Your task to perform on an android device: Add "beats solo 3" to the cart on amazon, then select checkout. Image 0: 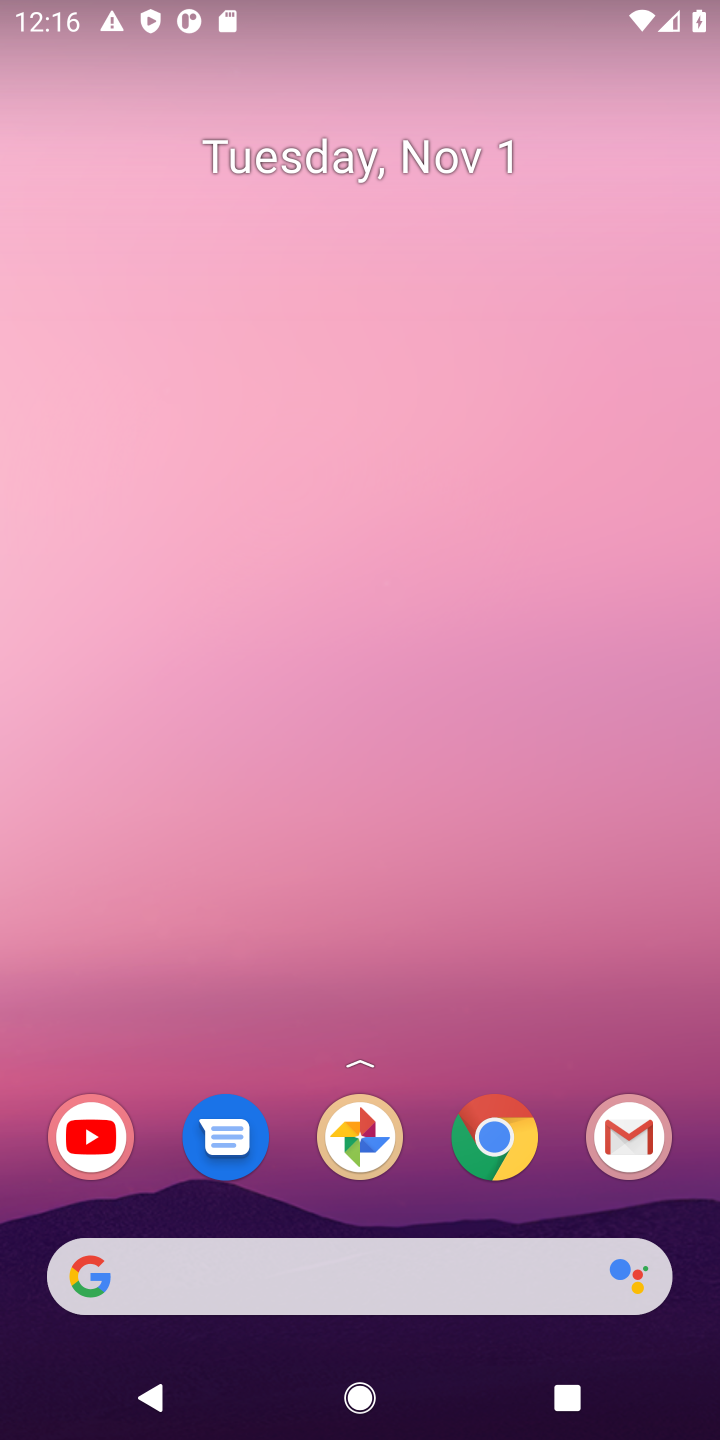
Step 0: click (482, 1168)
Your task to perform on an android device: Add "beats solo 3" to the cart on amazon, then select checkout. Image 1: 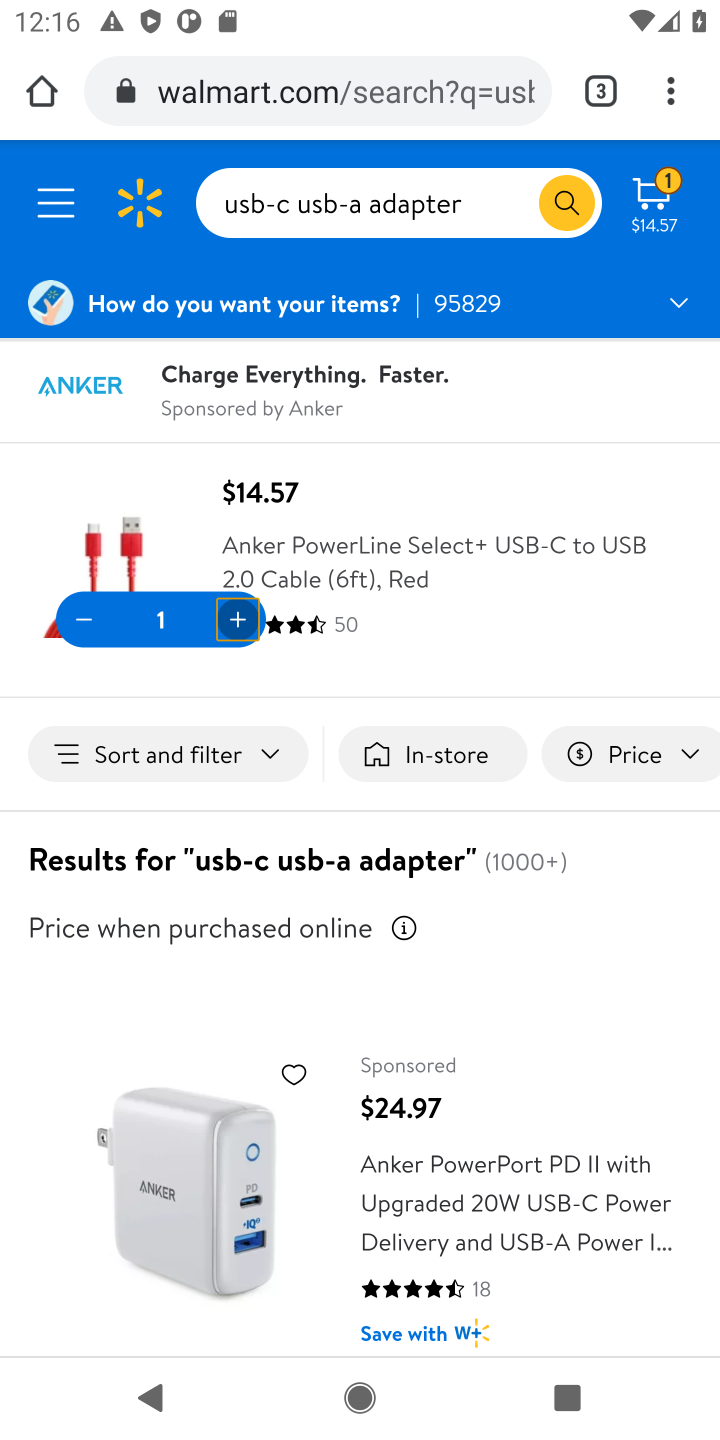
Step 1: click (596, 101)
Your task to perform on an android device: Add "beats solo 3" to the cart on amazon, then select checkout. Image 2: 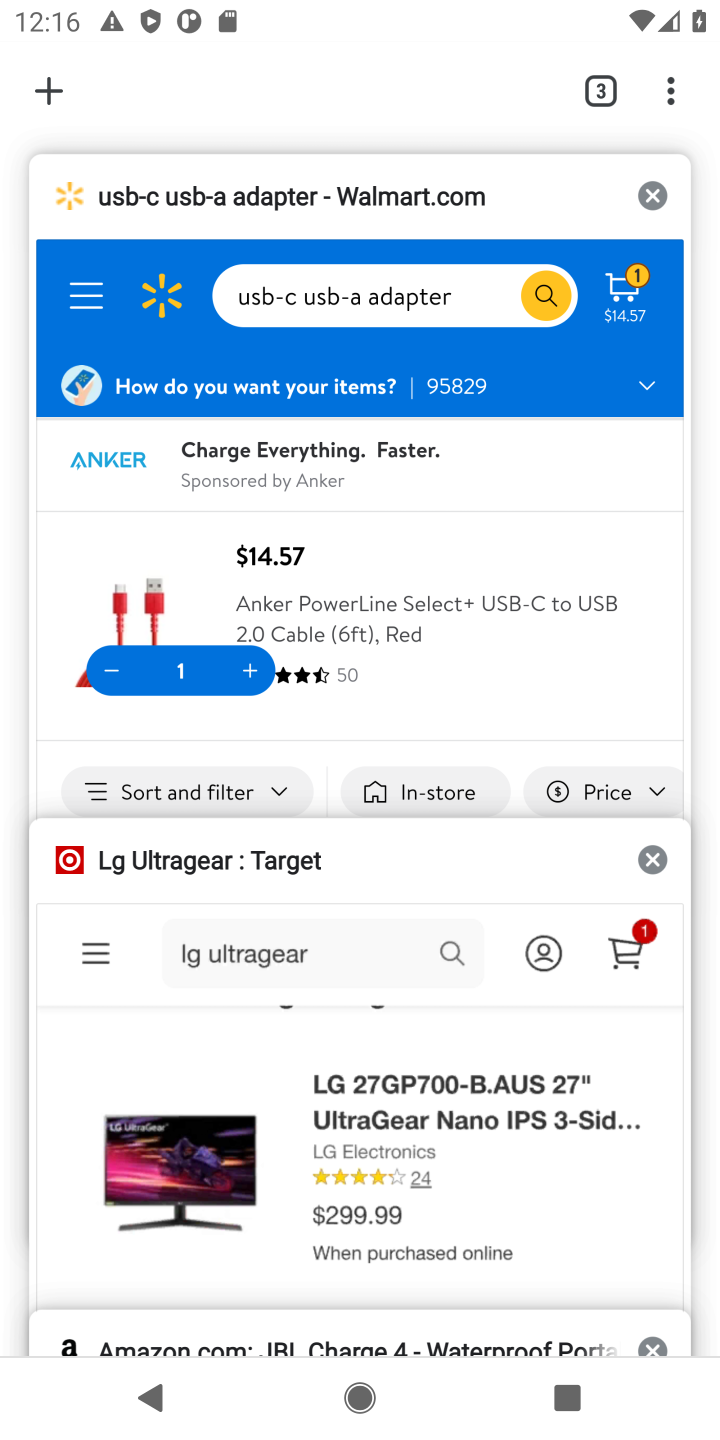
Step 2: click (320, 1330)
Your task to perform on an android device: Add "beats solo 3" to the cart on amazon, then select checkout. Image 3: 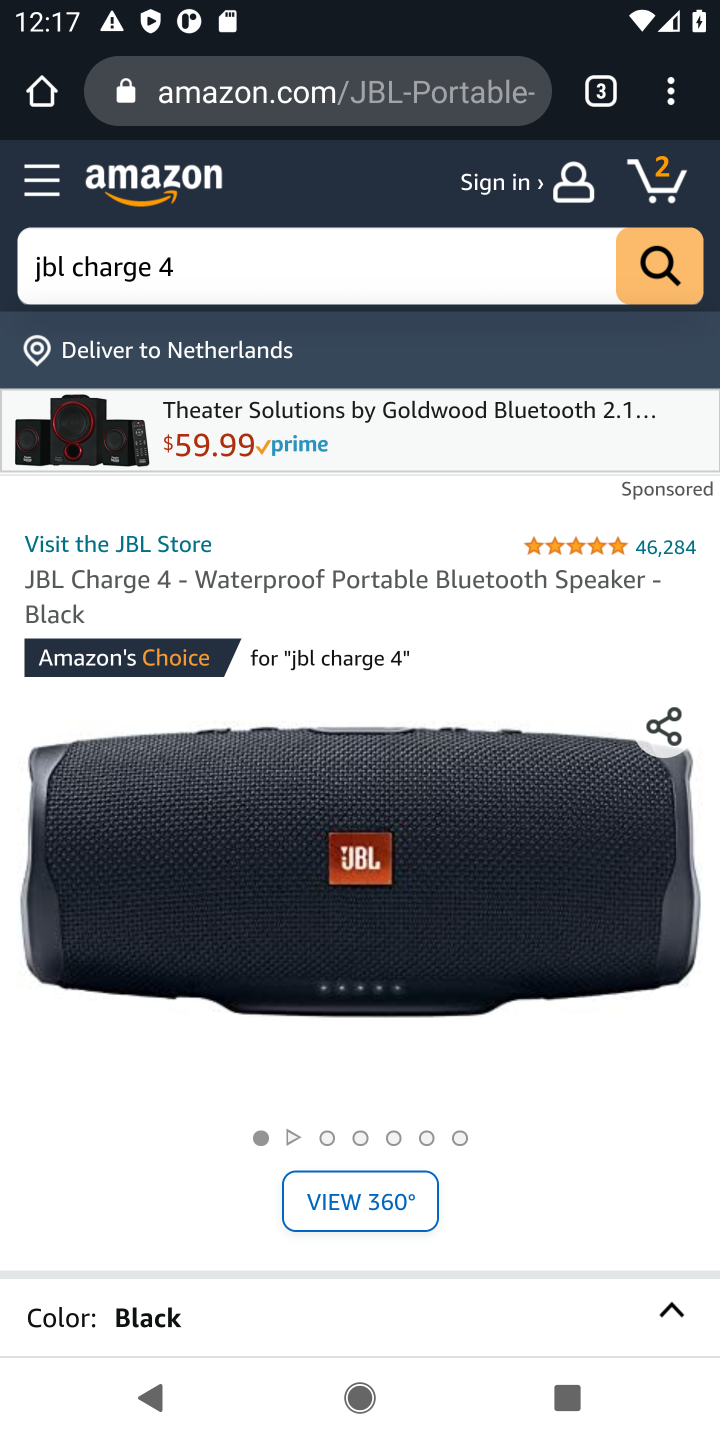
Step 3: click (542, 297)
Your task to perform on an android device: Add "beats solo 3" to the cart on amazon, then select checkout. Image 4: 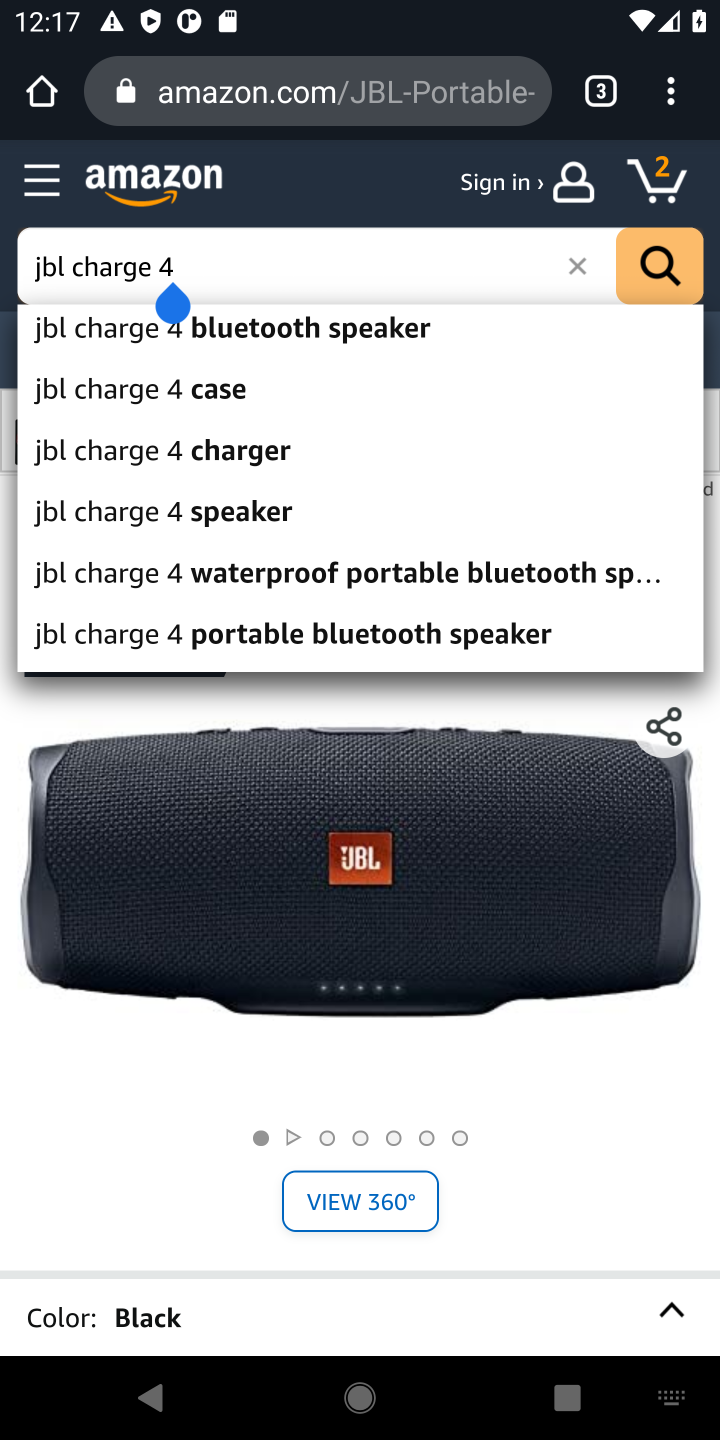
Step 4: click (579, 264)
Your task to perform on an android device: Add "beats solo 3" to the cart on amazon, then select checkout. Image 5: 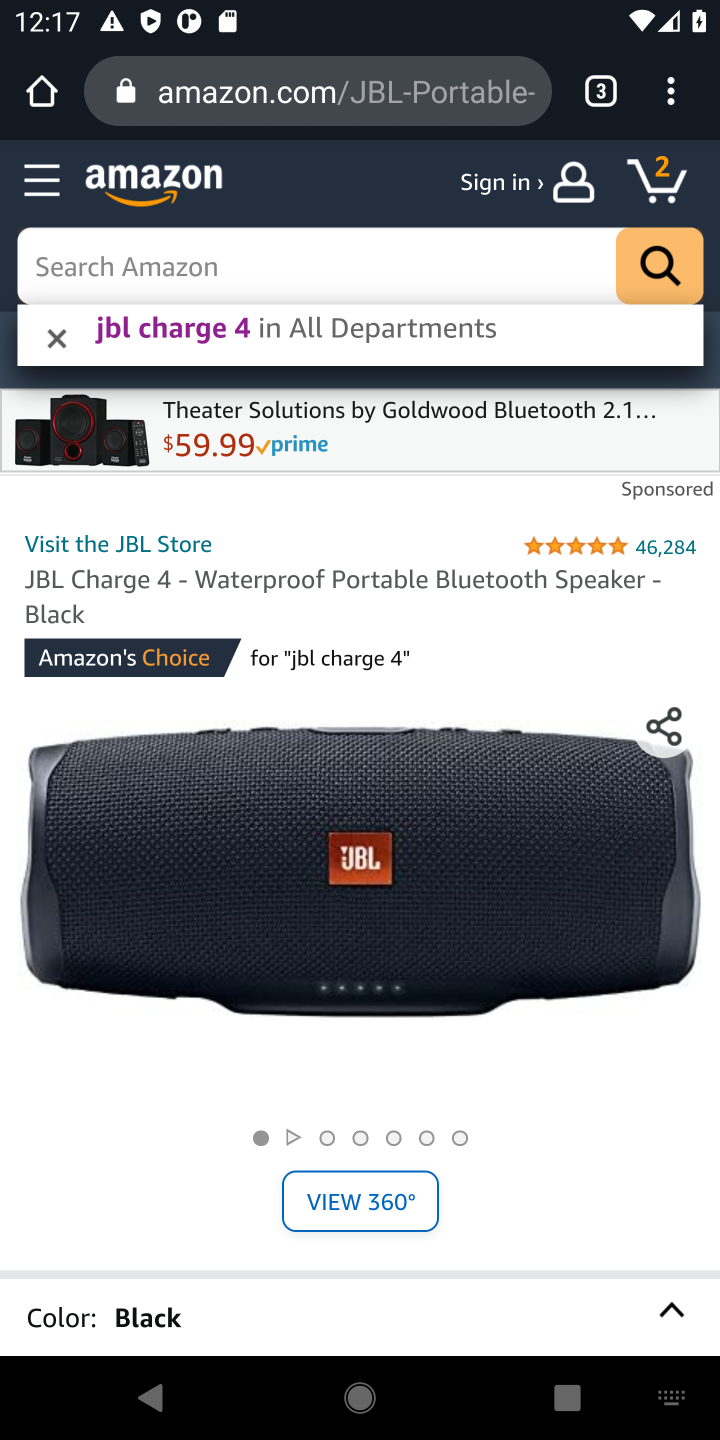
Step 5: type "beats solo 3"
Your task to perform on an android device: Add "beats solo 3" to the cart on amazon, then select checkout. Image 6: 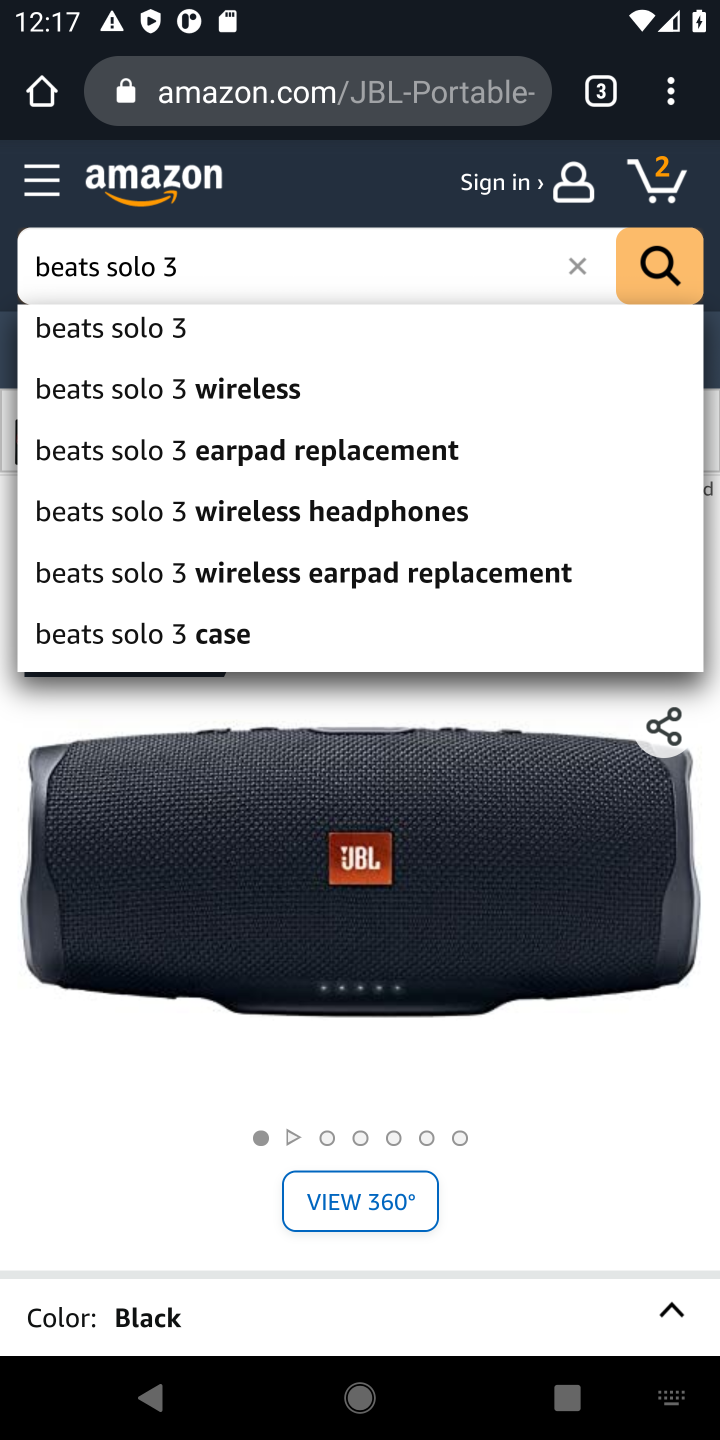
Step 6: click (134, 332)
Your task to perform on an android device: Add "beats solo 3" to the cart on amazon, then select checkout. Image 7: 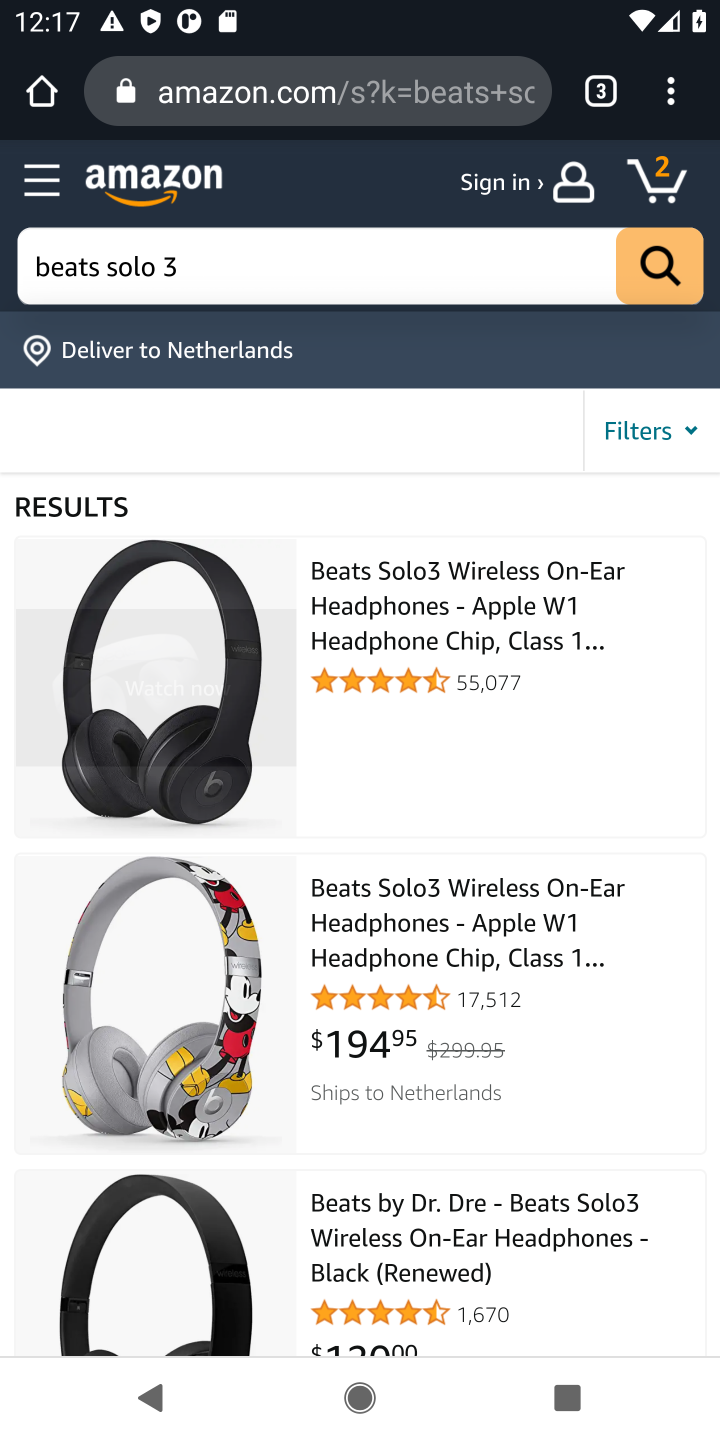
Step 7: click (415, 603)
Your task to perform on an android device: Add "beats solo 3" to the cart on amazon, then select checkout. Image 8: 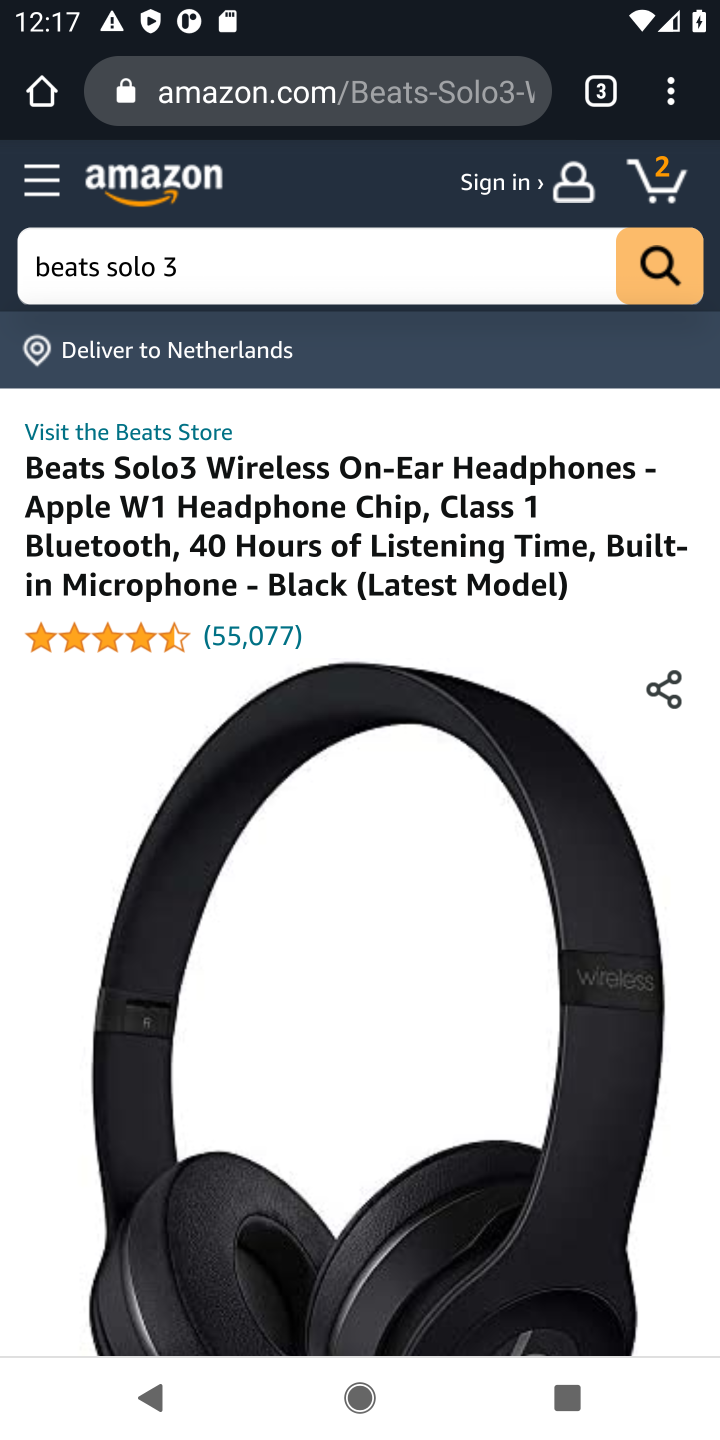
Step 8: drag from (357, 873) to (553, 148)
Your task to perform on an android device: Add "beats solo 3" to the cart on amazon, then select checkout. Image 9: 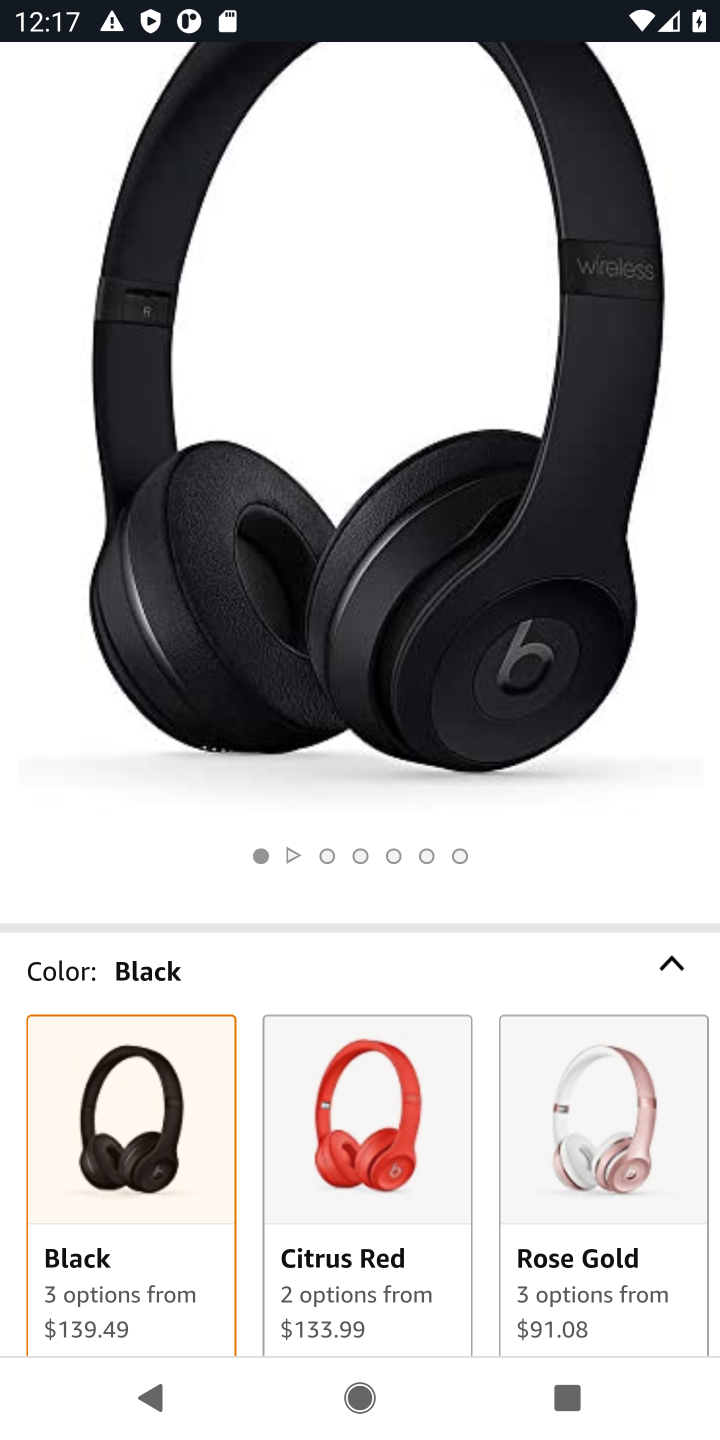
Step 9: drag from (354, 1058) to (432, 268)
Your task to perform on an android device: Add "beats solo 3" to the cart on amazon, then select checkout. Image 10: 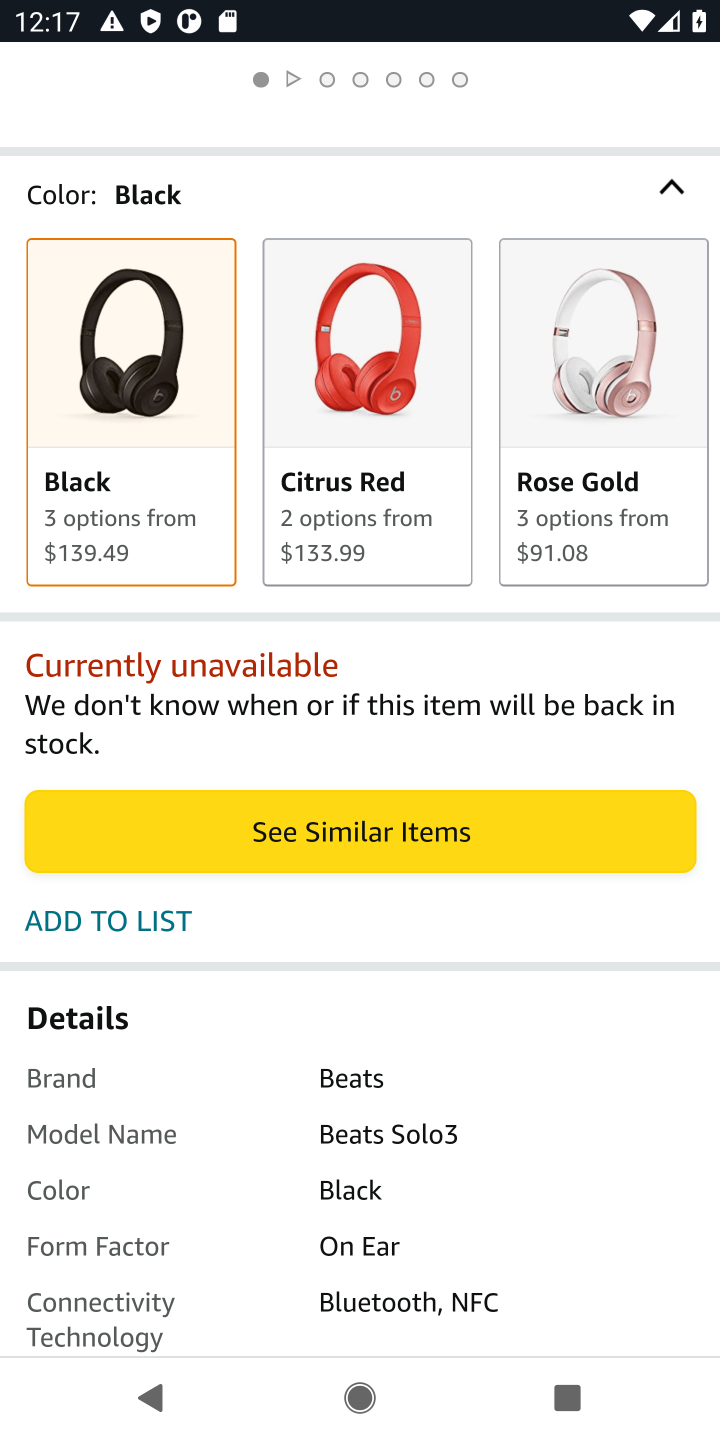
Step 10: click (124, 922)
Your task to perform on an android device: Add "beats solo 3" to the cart on amazon, then select checkout. Image 11: 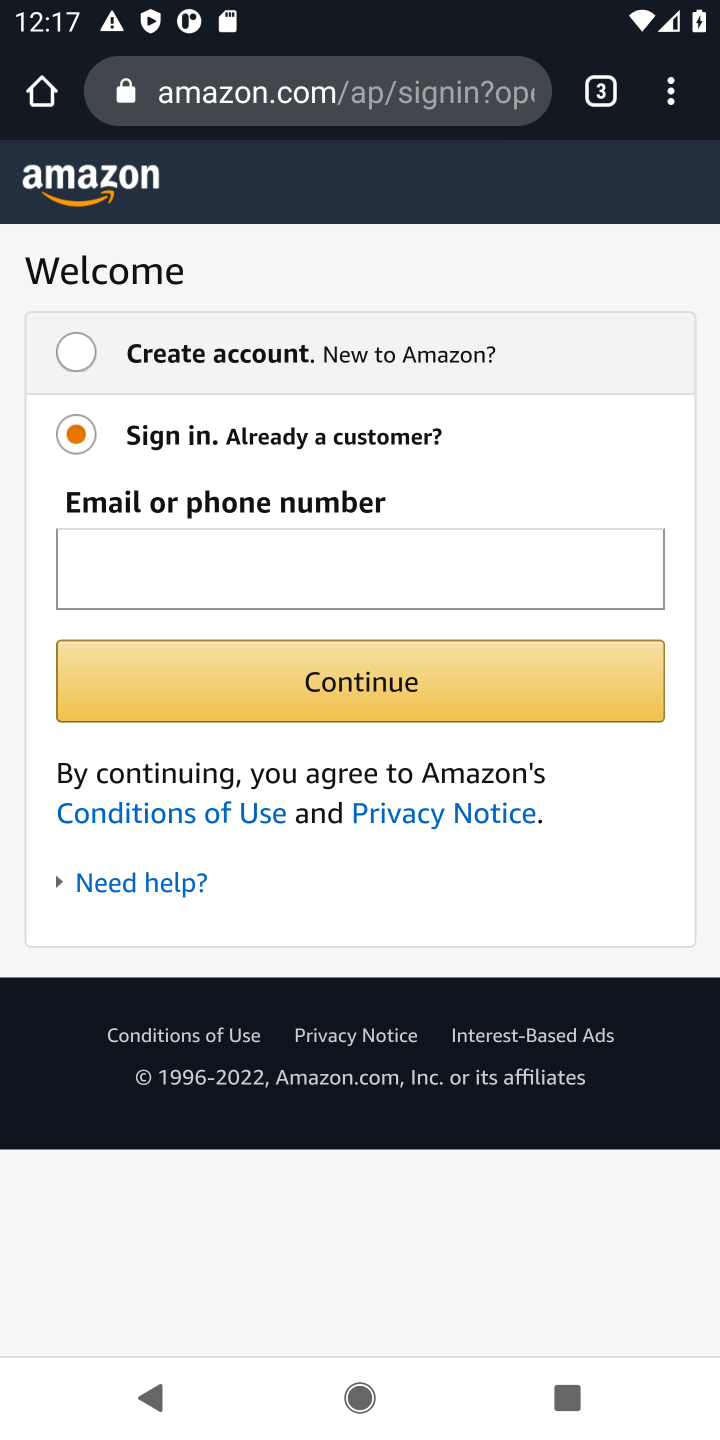
Step 11: task complete